Your task to perform on an android device: refresh tabs in the chrome app Image 0: 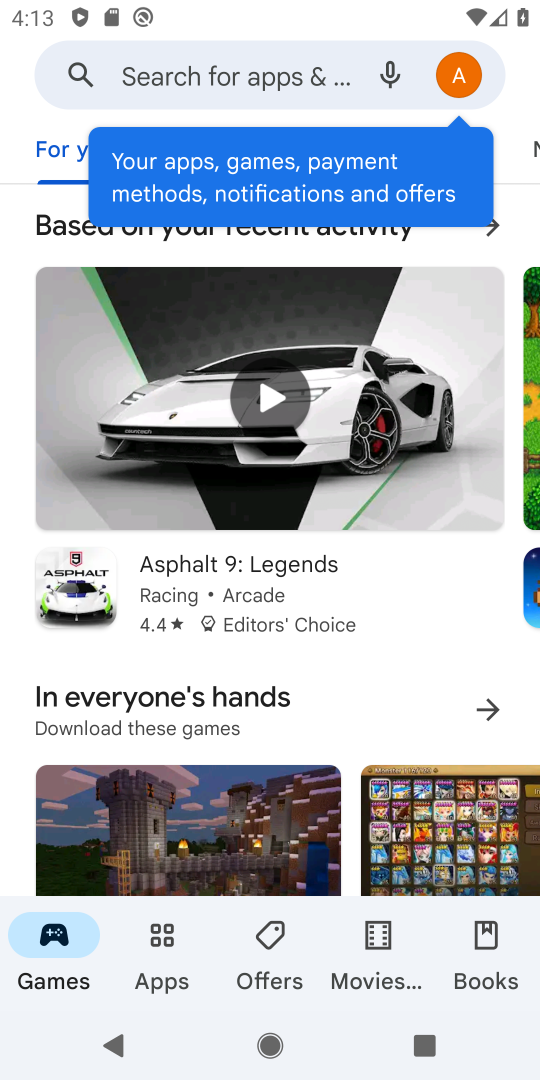
Step 0: press home button
Your task to perform on an android device: refresh tabs in the chrome app Image 1: 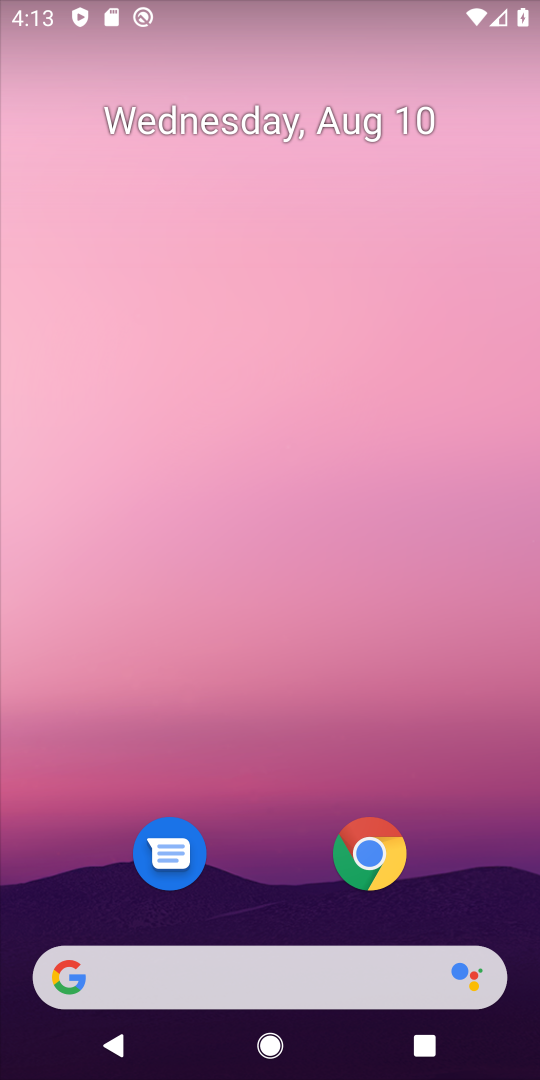
Step 1: click (382, 849)
Your task to perform on an android device: refresh tabs in the chrome app Image 2: 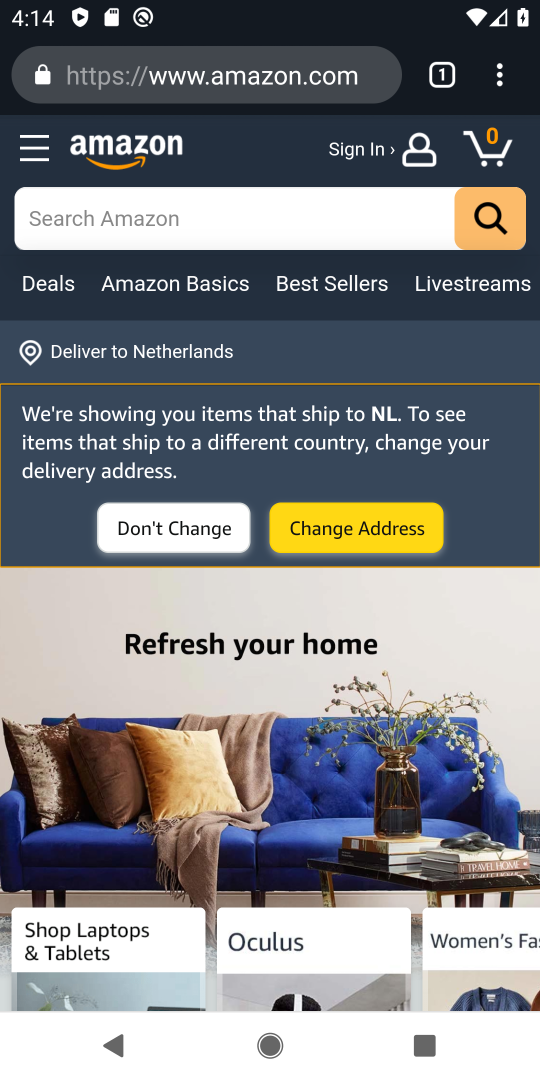
Step 2: click (498, 75)
Your task to perform on an android device: refresh tabs in the chrome app Image 3: 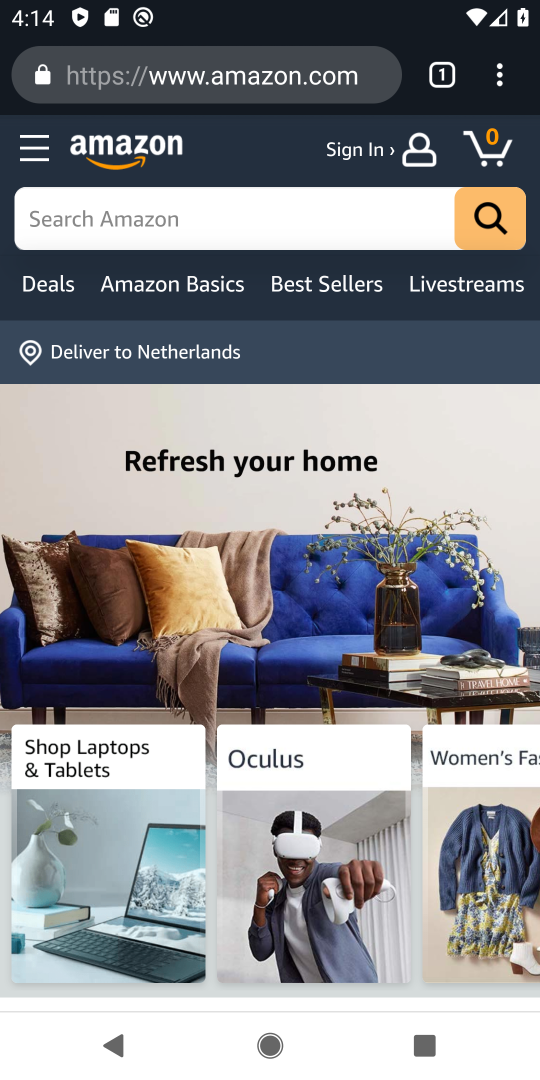
Step 3: click (501, 81)
Your task to perform on an android device: refresh tabs in the chrome app Image 4: 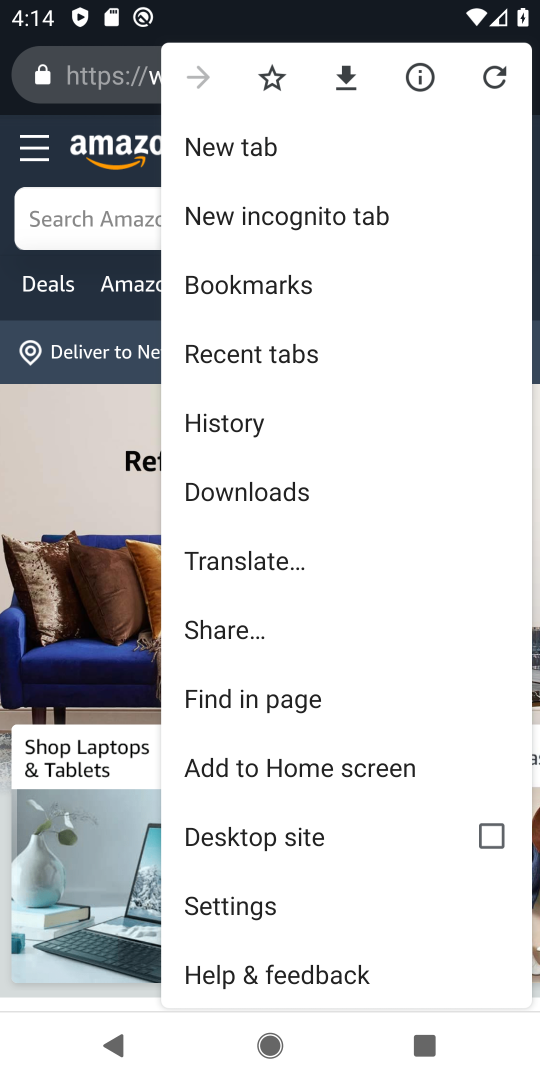
Step 4: click (487, 77)
Your task to perform on an android device: refresh tabs in the chrome app Image 5: 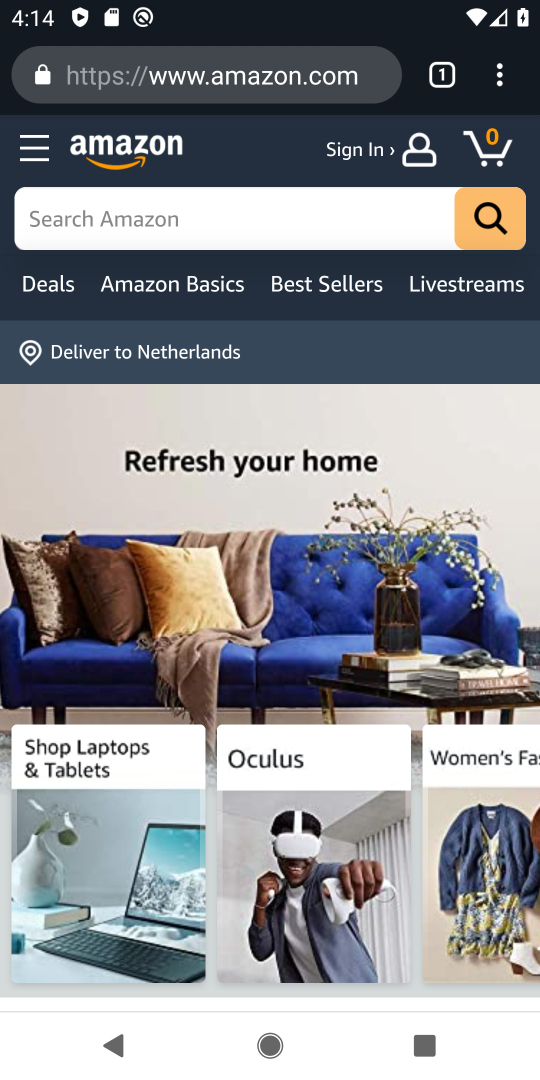
Step 5: task complete